Your task to perform on an android device: Search for macbook pro on walmart.com, select the first entry, and add it to the cart. Image 0: 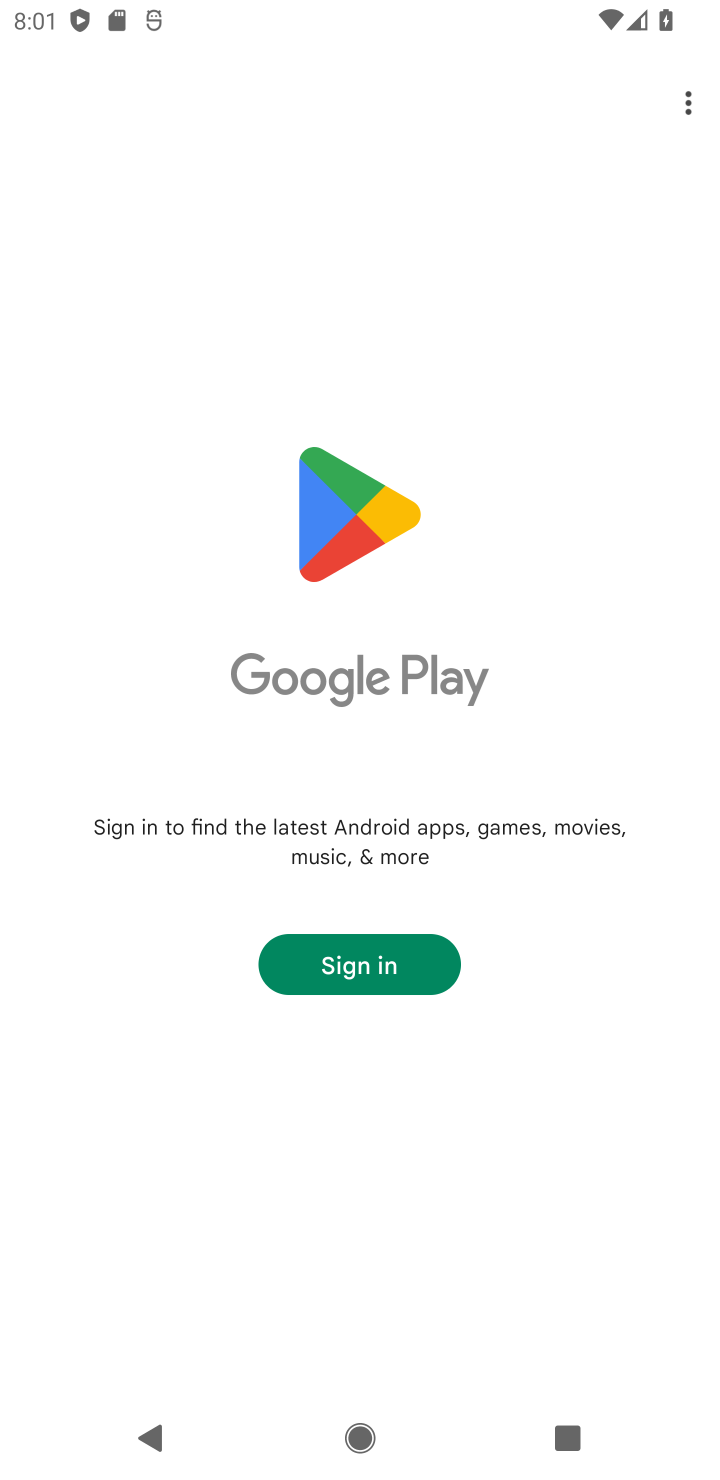
Step 0: press home button
Your task to perform on an android device: Search for macbook pro on walmart.com, select the first entry, and add it to the cart. Image 1: 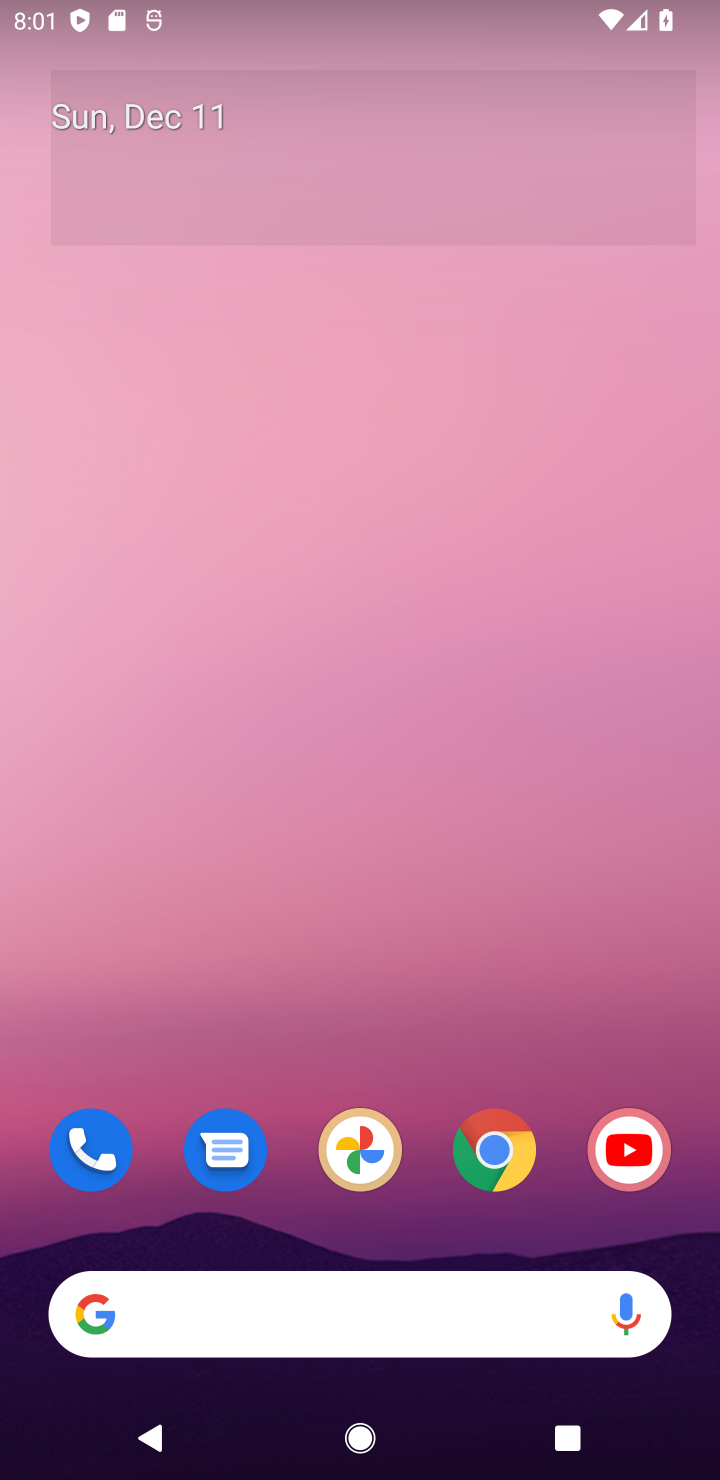
Step 1: click (496, 1149)
Your task to perform on an android device: Search for macbook pro on walmart.com, select the first entry, and add it to the cart. Image 2: 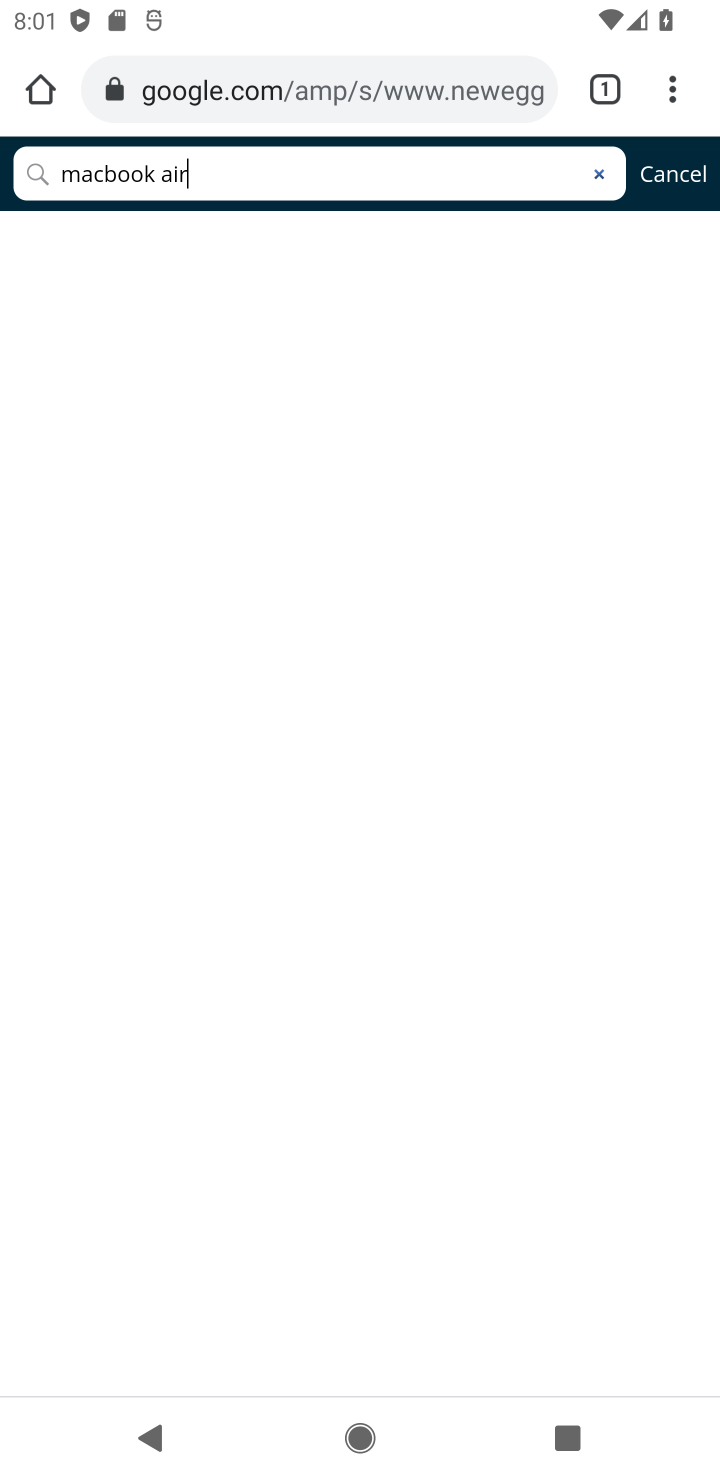
Step 2: click (361, 90)
Your task to perform on an android device: Search for macbook pro on walmart.com, select the first entry, and add it to the cart. Image 3: 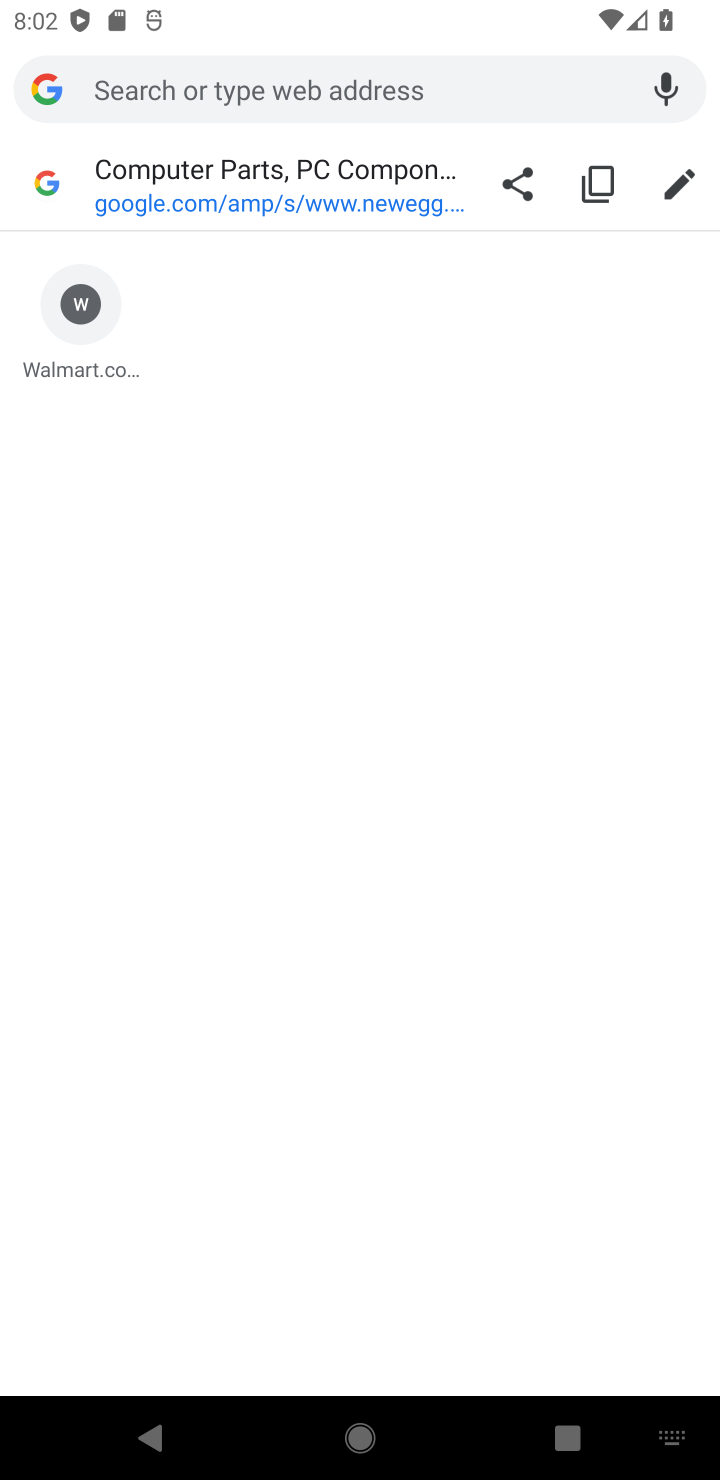
Step 3: type "walmart.com"
Your task to perform on an android device: Search for macbook pro on walmart.com, select the first entry, and add it to the cart. Image 4: 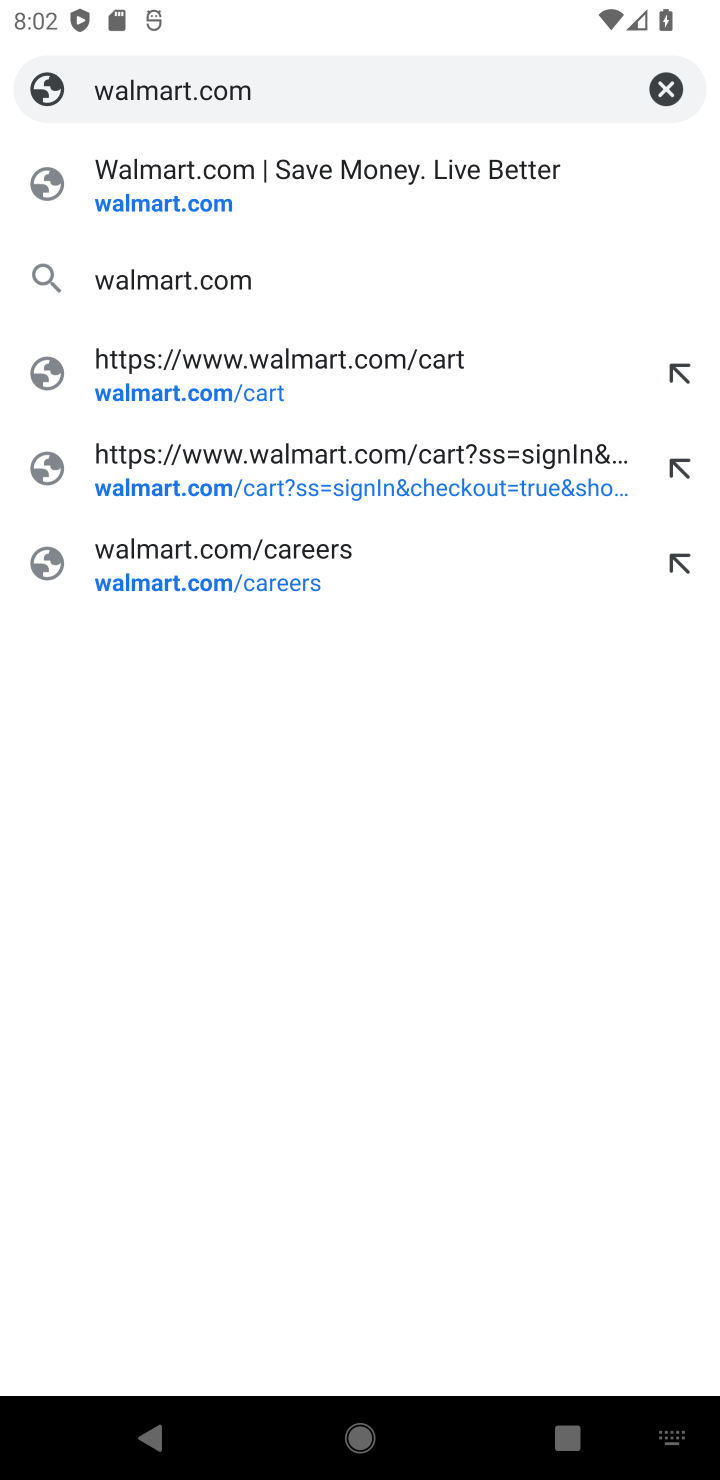
Step 4: click (196, 278)
Your task to perform on an android device: Search for macbook pro on walmart.com, select the first entry, and add it to the cart. Image 5: 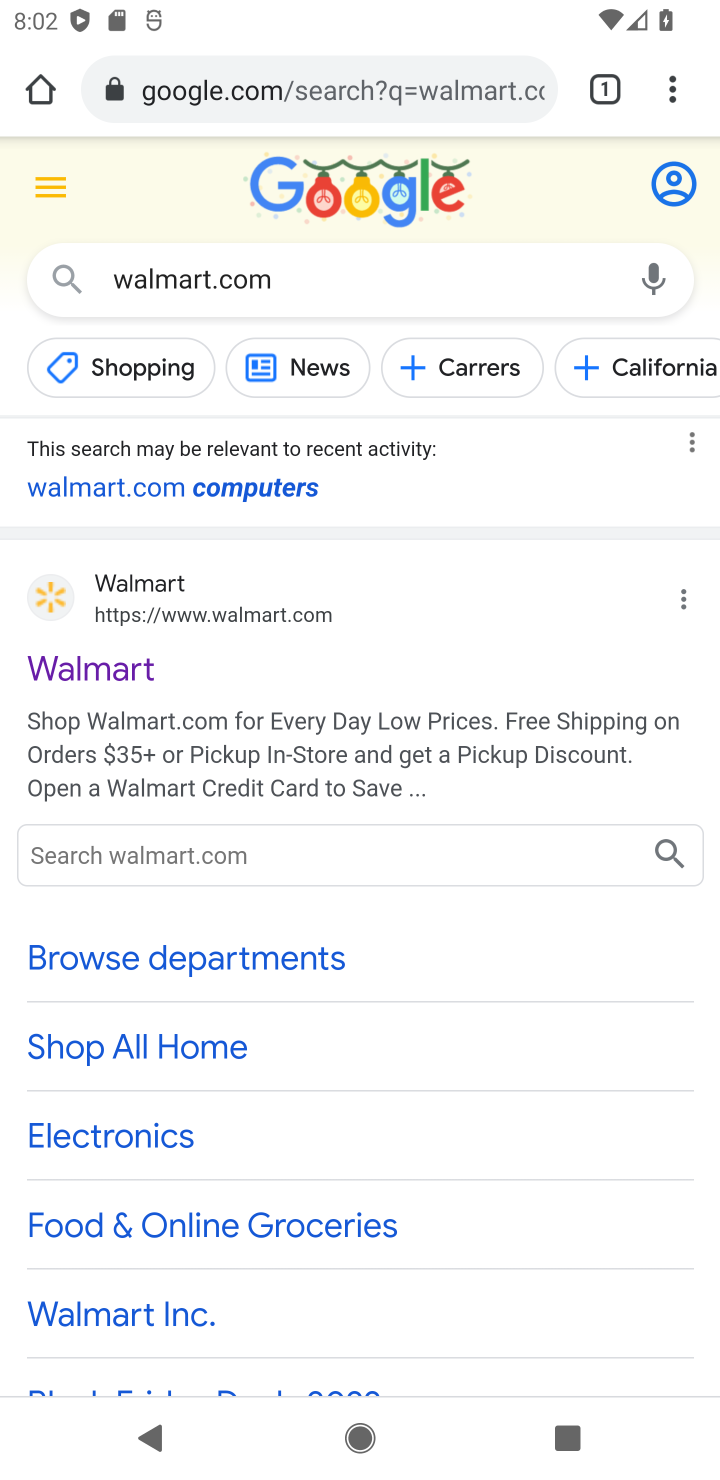
Step 5: click (113, 678)
Your task to perform on an android device: Search for macbook pro on walmart.com, select the first entry, and add it to the cart. Image 6: 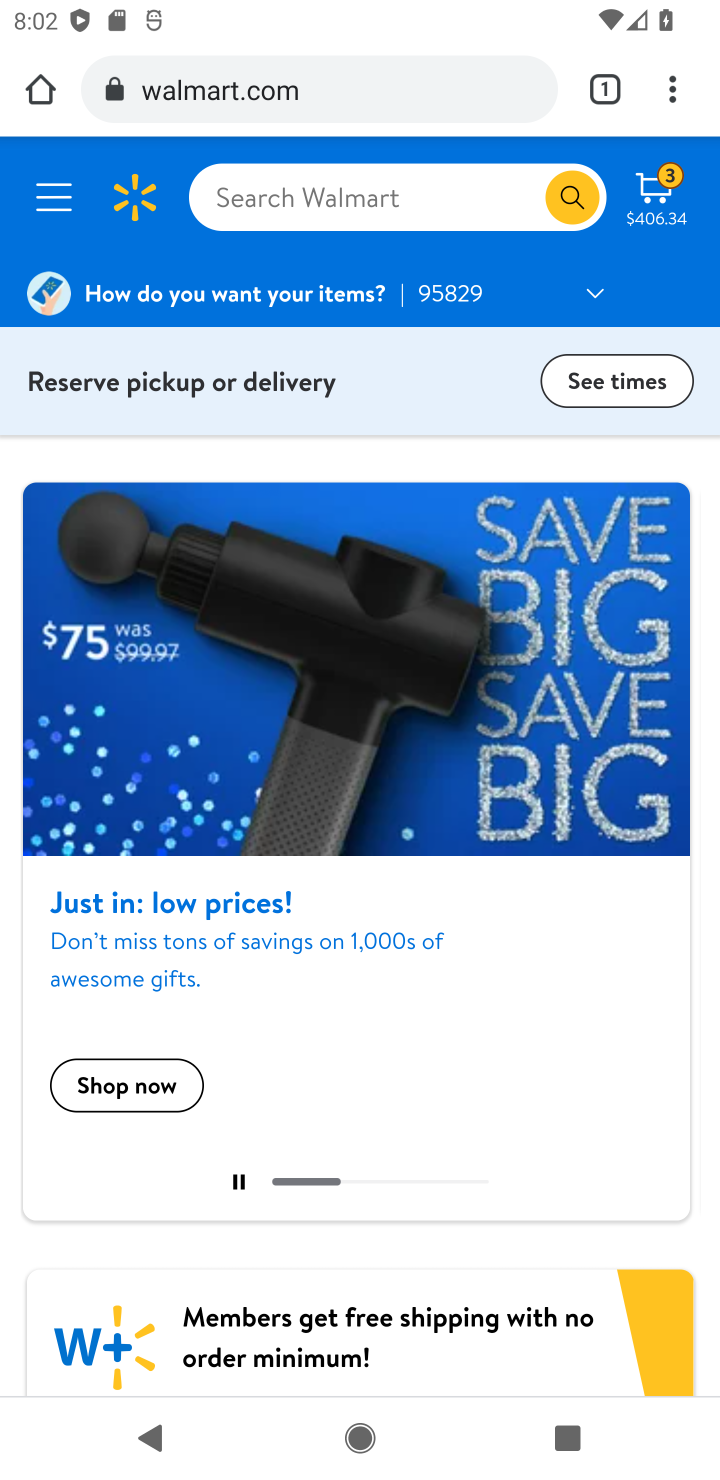
Step 6: click (328, 195)
Your task to perform on an android device: Search for macbook pro on walmart.com, select the first entry, and add it to the cart. Image 7: 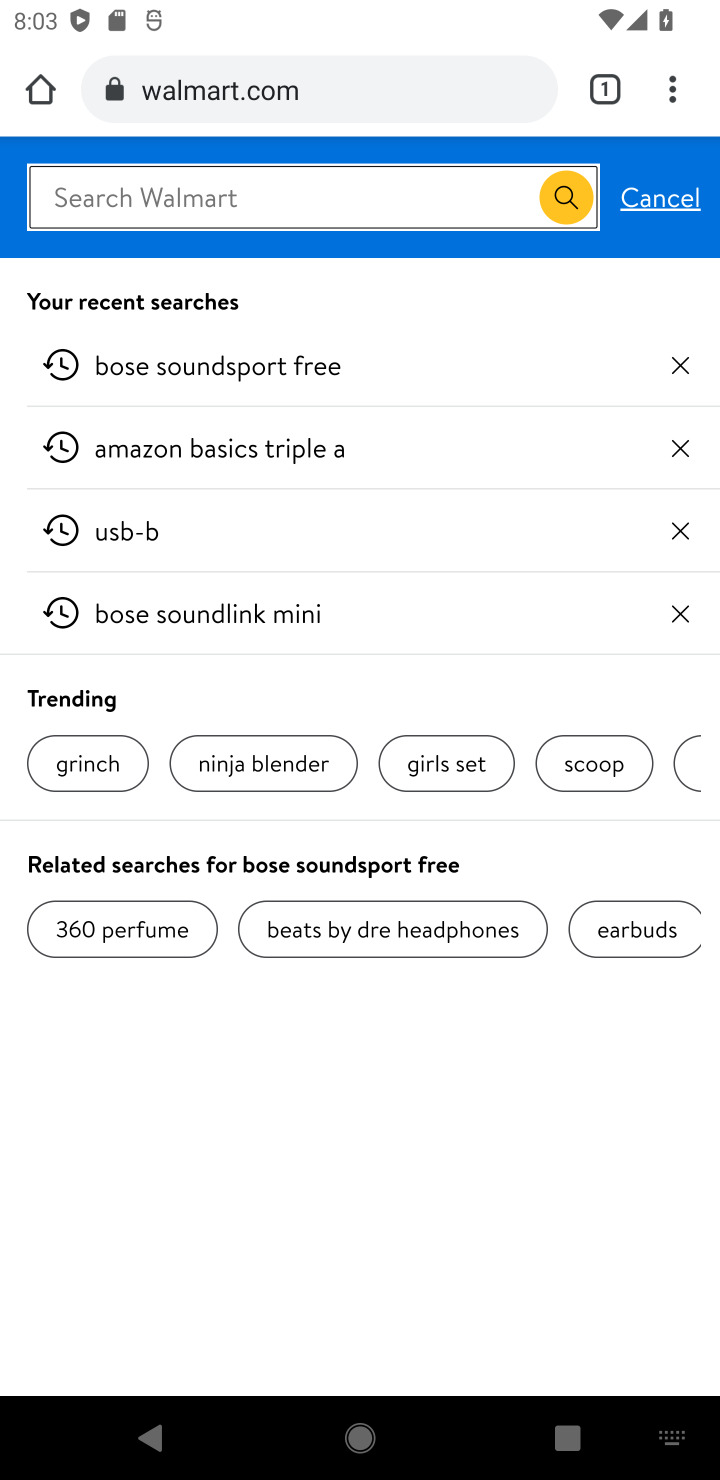
Step 7: type "macbook pro"
Your task to perform on an android device: Search for macbook pro on walmart.com, select the first entry, and add it to the cart. Image 8: 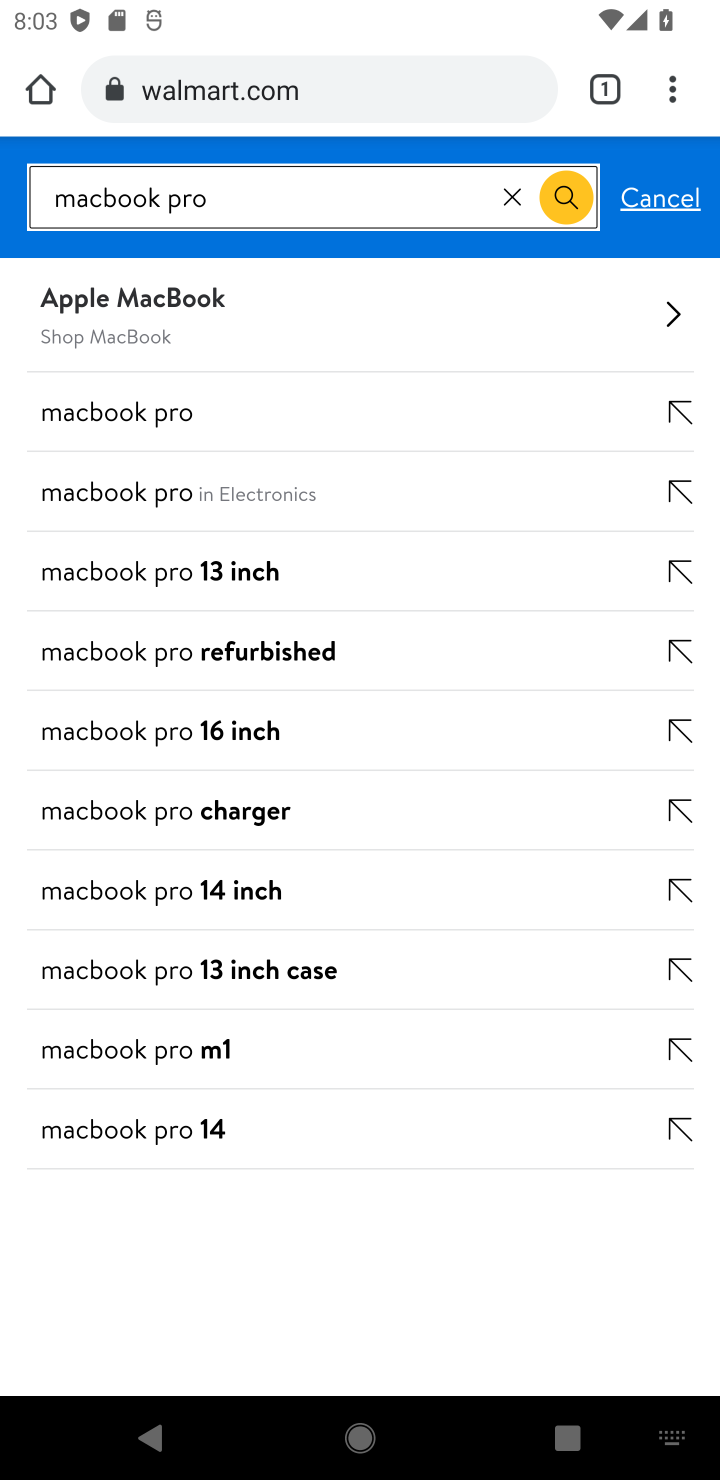
Step 8: click (174, 415)
Your task to perform on an android device: Search for macbook pro on walmart.com, select the first entry, and add it to the cart. Image 9: 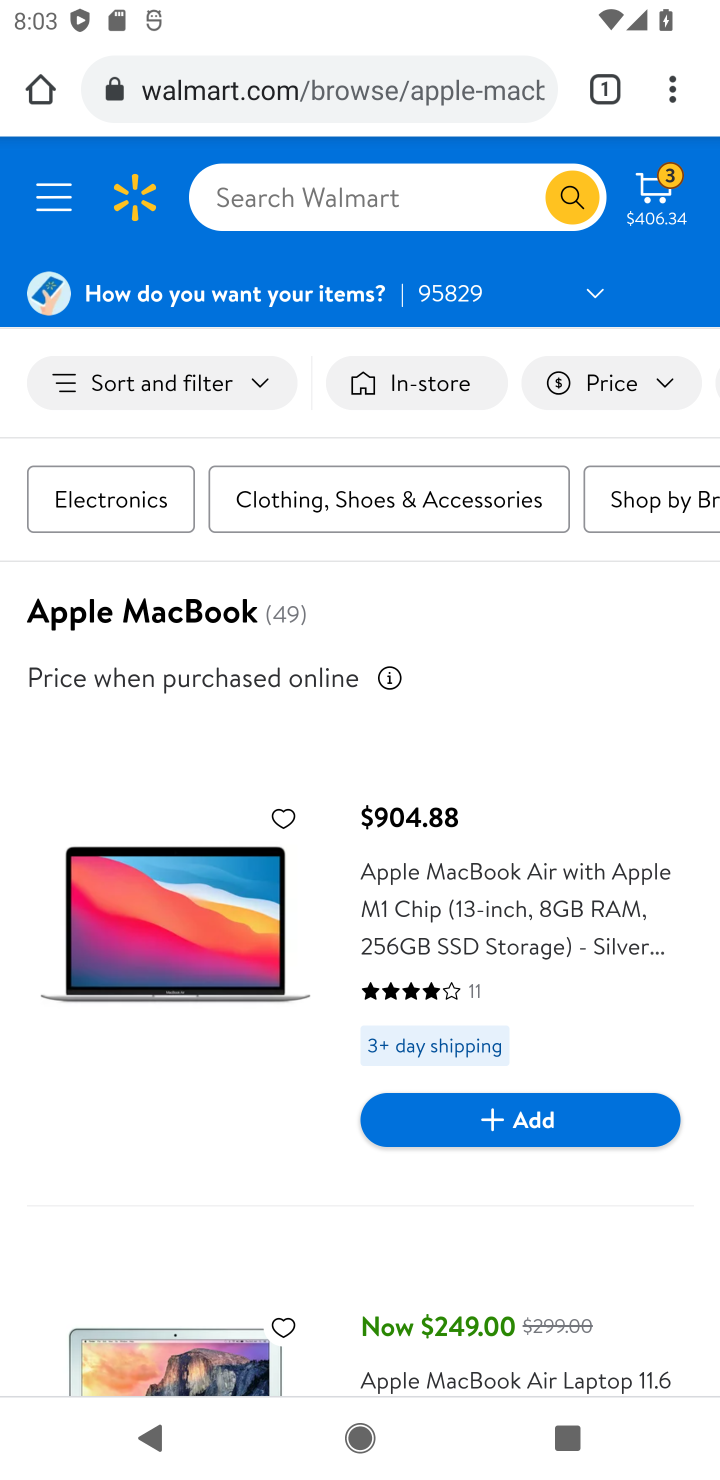
Step 9: click (396, 872)
Your task to perform on an android device: Search for macbook pro on walmart.com, select the first entry, and add it to the cart. Image 10: 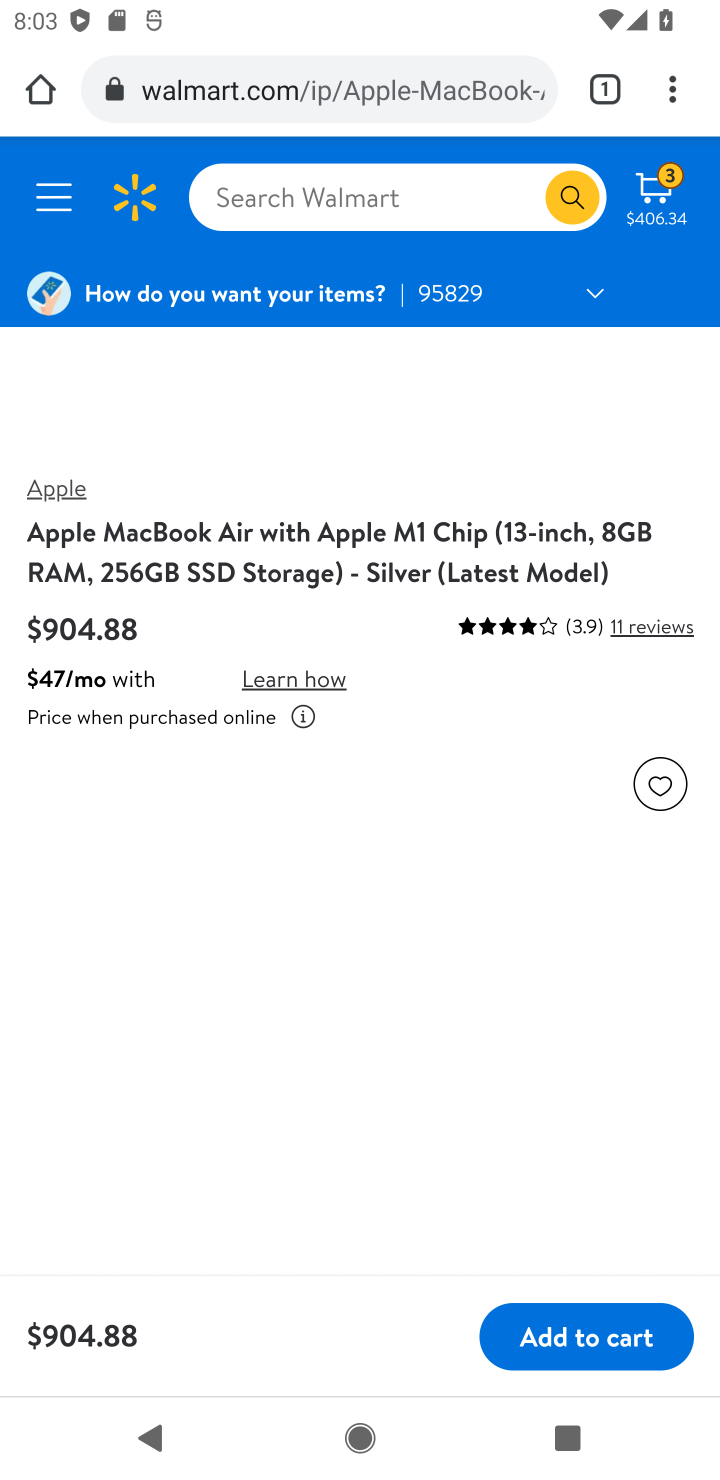
Step 10: click (581, 1339)
Your task to perform on an android device: Search for macbook pro on walmart.com, select the first entry, and add it to the cart. Image 11: 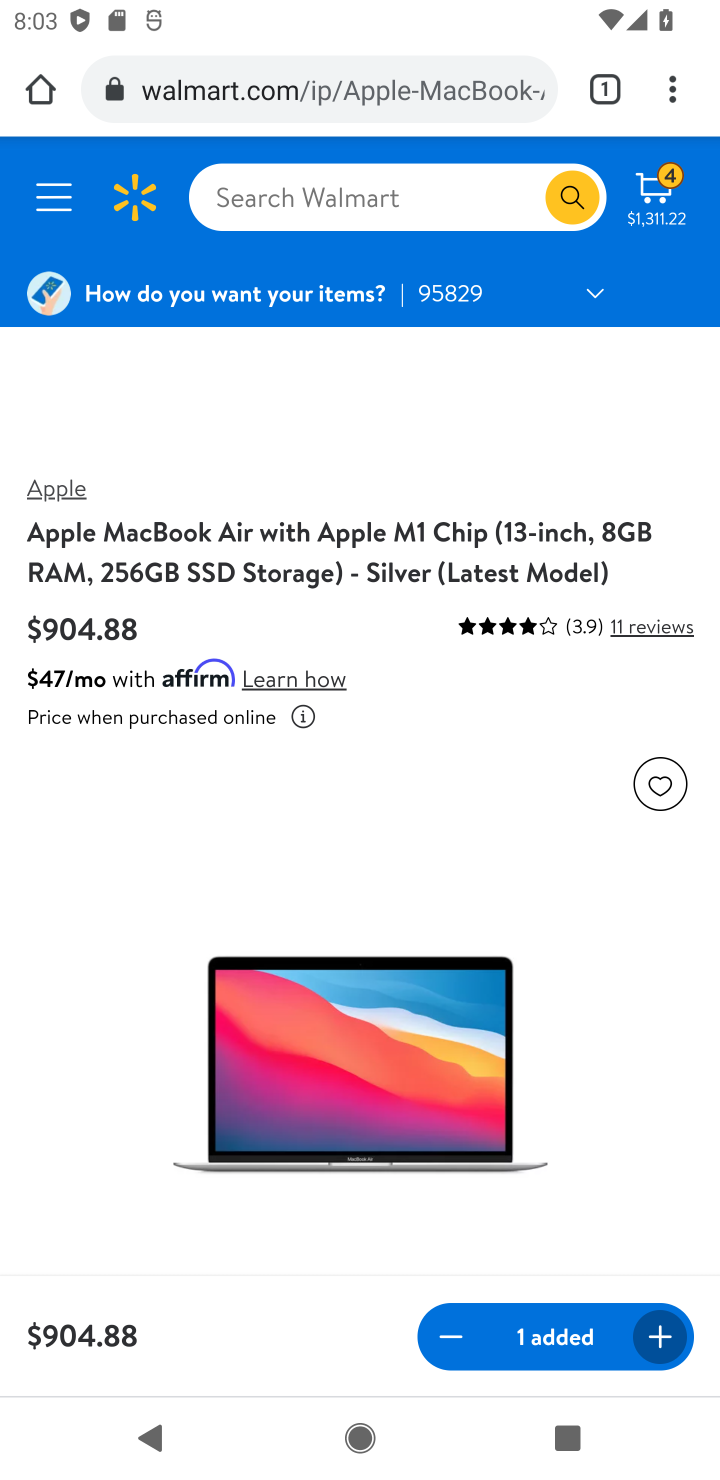
Step 11: task complete